Your task to perform on an android device: Open privacy settings Image 0: 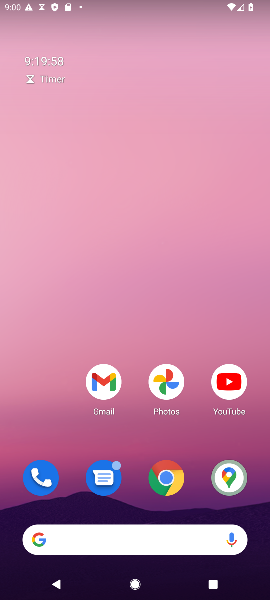
Step 0: drag from (183, 339) to (131, 5)
Your task to perform on an android device: Open privacy settings Image 1: 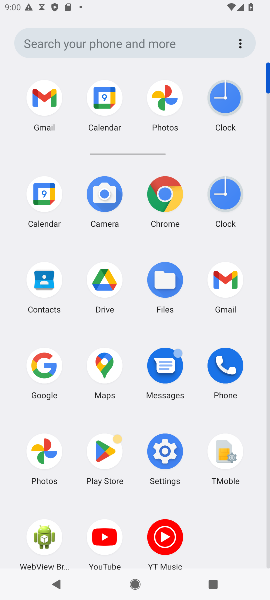
Step 1: click (172, 445)
Your task to perform on an android device: Open privacy settings Image 2: 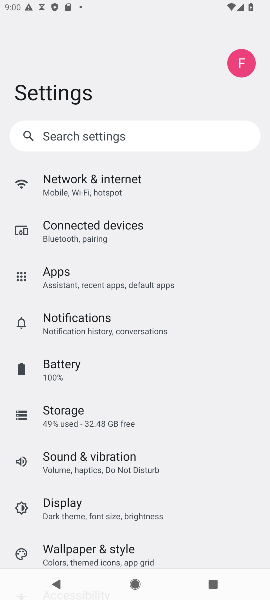
Step 2: drag from (134, 533) to (82, 132)
Your task to perform on an android device: Open privacy settings Image 3: 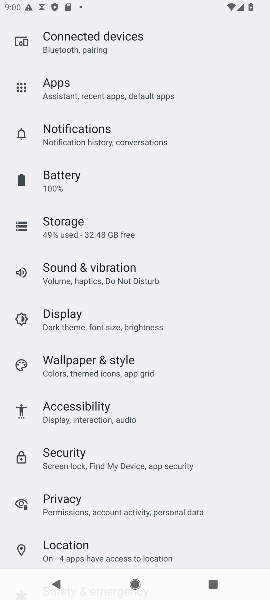
Step 3: click (113, 488)
Your task to perform on an android device: Open privacy settings Image 4: 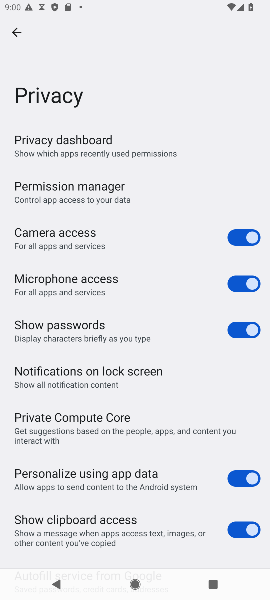
Step 4: task complete